Your task to perform on an android device: add a contact in the contacts app Image 0: 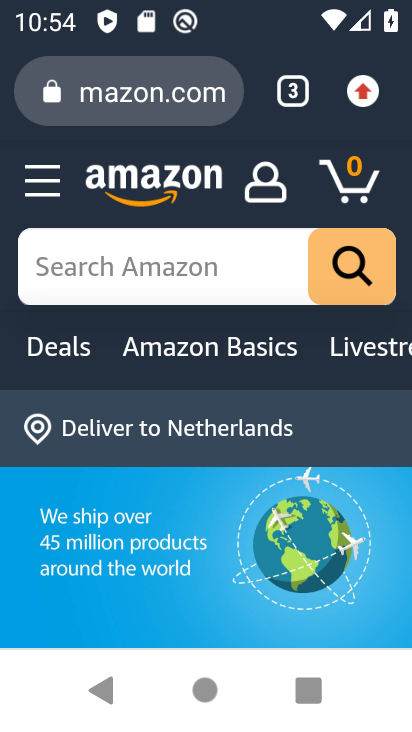
Step 0: press home button
Your task to perform on an android device: add a contact in the contacts app Image 1: 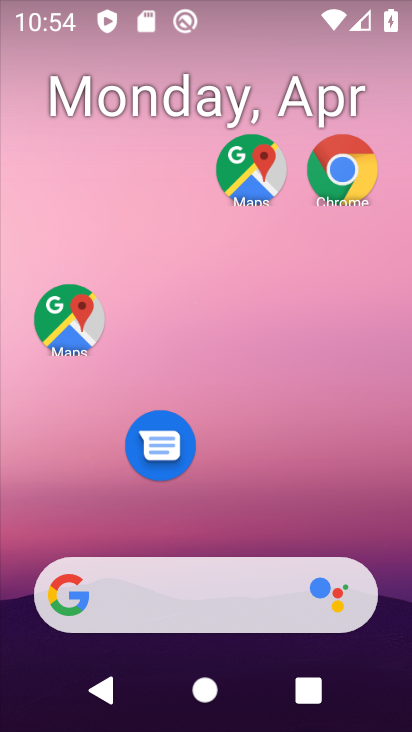
Step 1: drag from (242, 511) to (220, 18)
Your task to perform on an android device: add a contact in the contacts app Image 2: 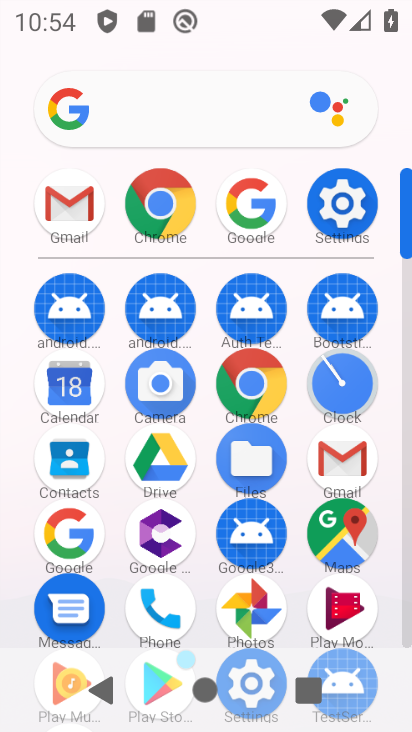
Step 2: click (63, 476)
Your task to perform on an android device: add a contact in the contacts app Image 3: 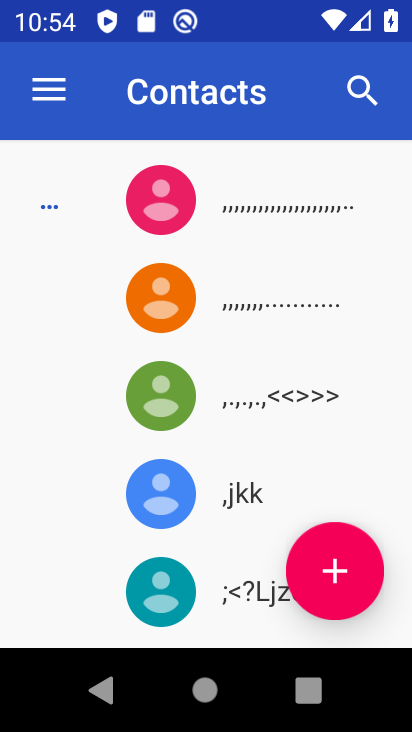
Step 3: click (326, 563)
Your task to perform on an android device: add a contact in the contacts app Image 4: 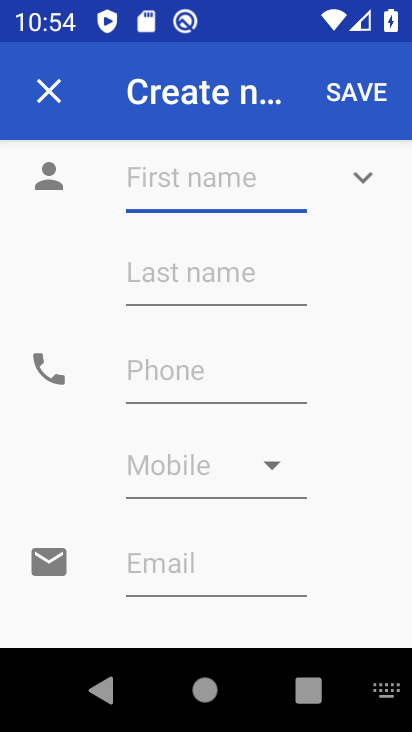
Step 4: type "dfvbn"
Your task to perform on an android device: add a contact in the contacts app Image 5: 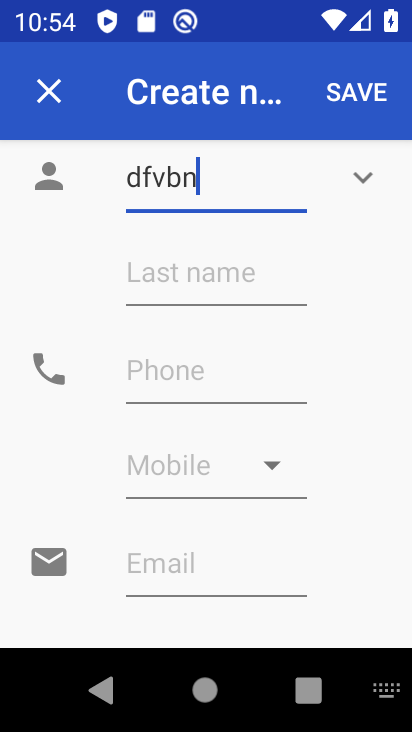
Step 5: click (208, 389)
Your task to perform on an android device: add a contact in the contacts app Image 6: 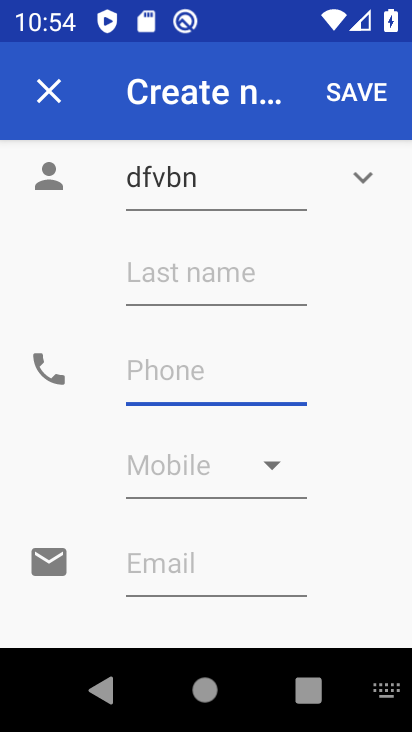
Step 6: type "23467654554"
Your task to perform on an android device: add a contact in the contacts app Image 7: 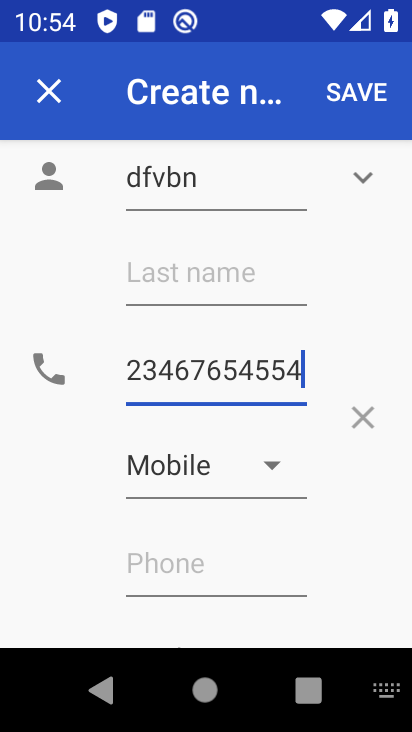
Step 7: click (370, 69)
Your task to perform on an android device: add a contact in the contacts app Image 8: 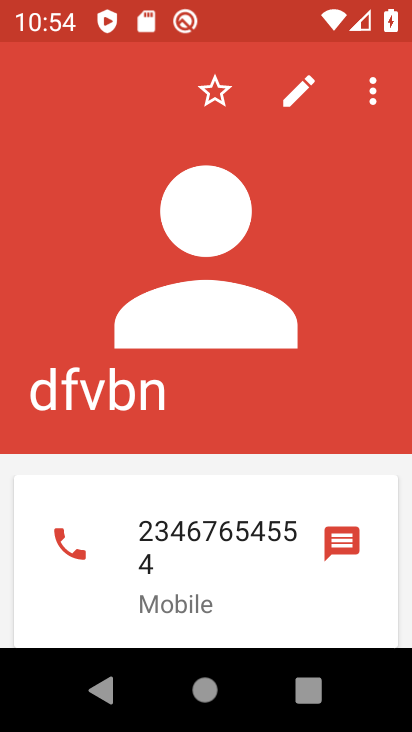
Step 8: task complete